Your task to perform on an android device: check out phone information Image 0: 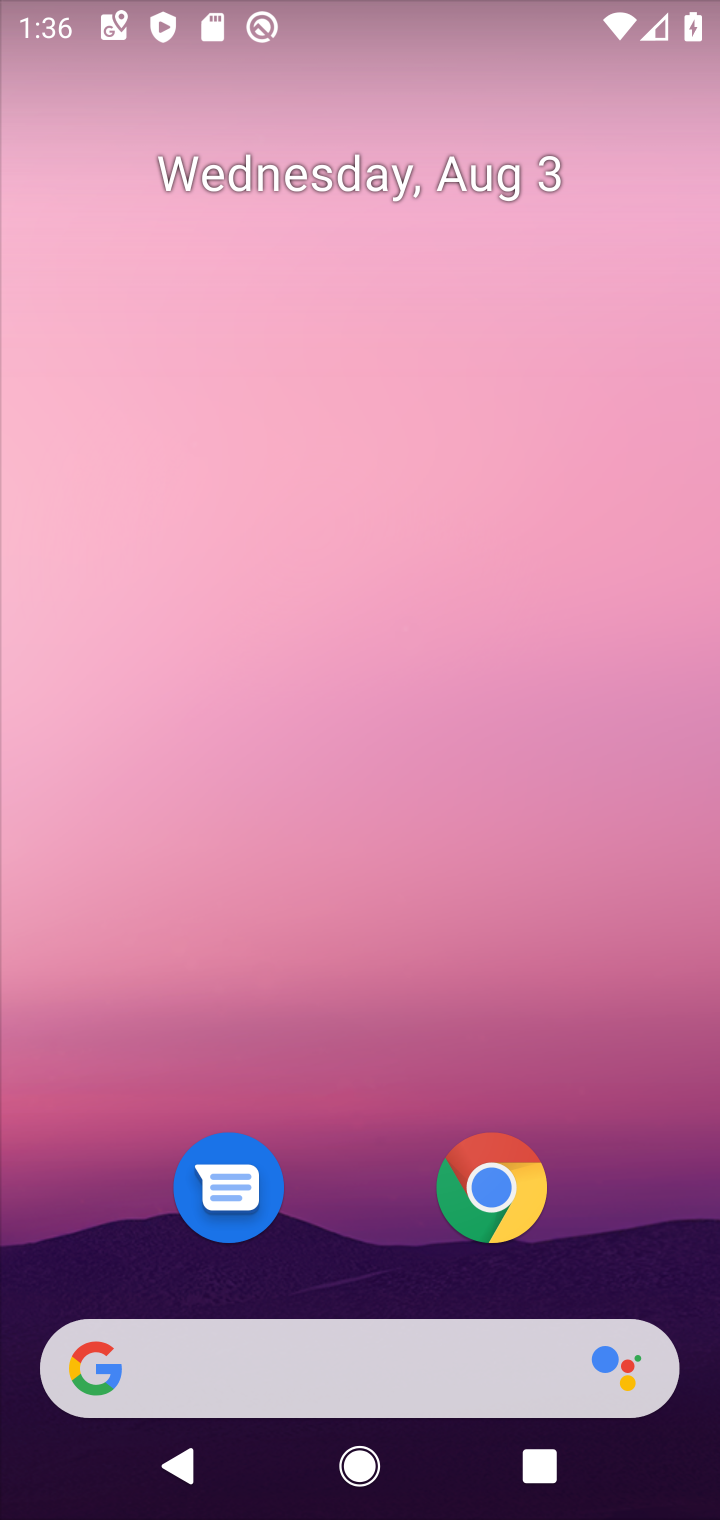
Step 0: drag from (387, 1056) to (394, 0)
Your task to perform on an android device: check out phone information Image 1: 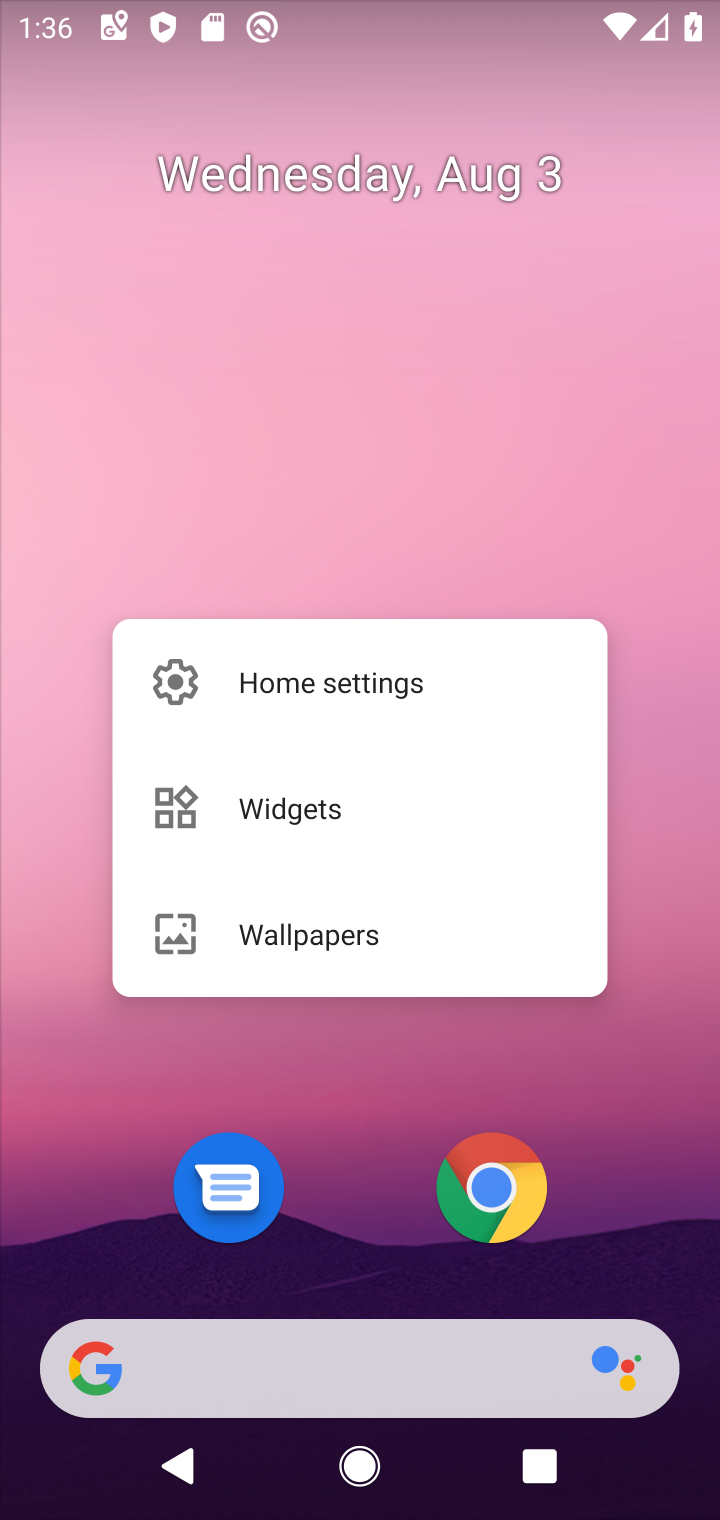
Step 1: click (560, 1025)
Your task to perform on an android device: check out phone information Image 2: 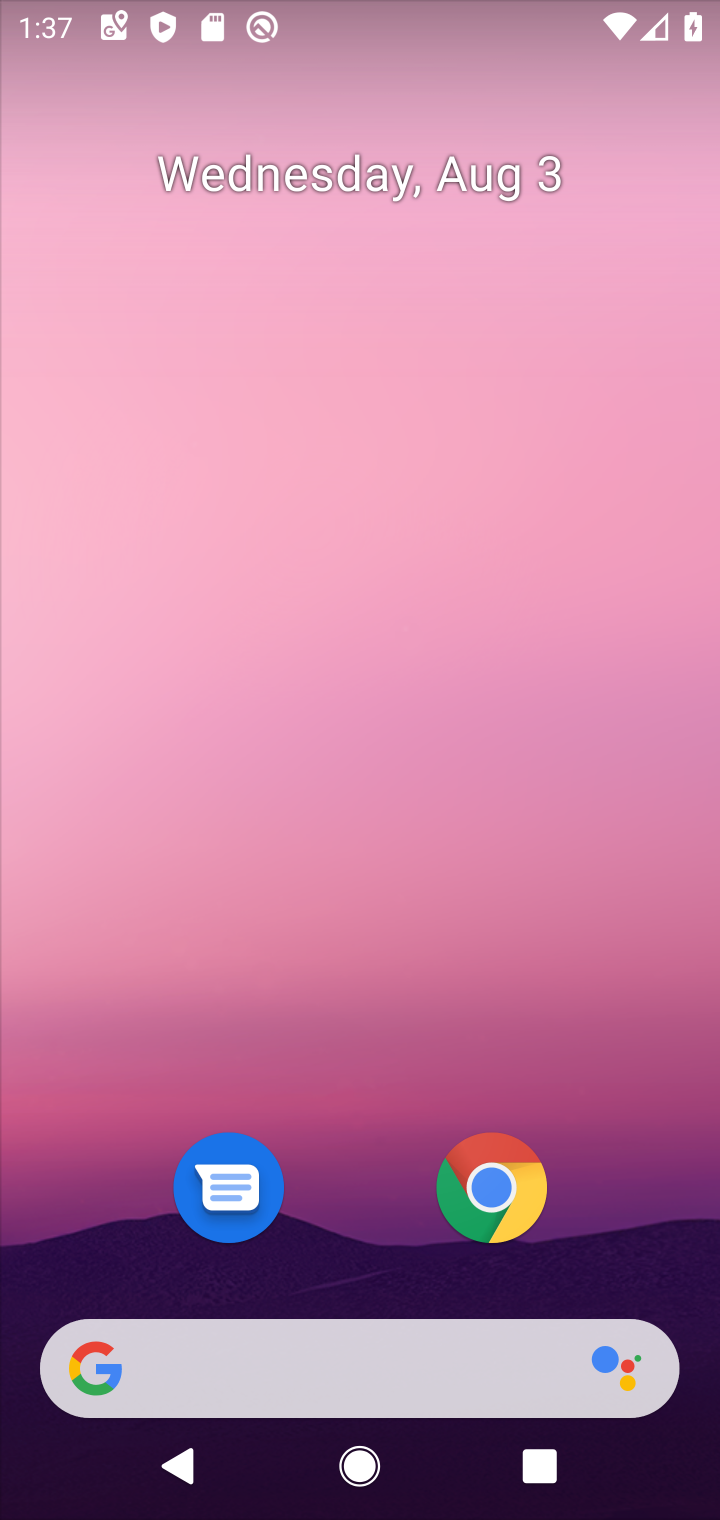
Step 2: drag from (359, 1173) to (515, 1)
Your task to perform on an android device: check out phone information Image 3: 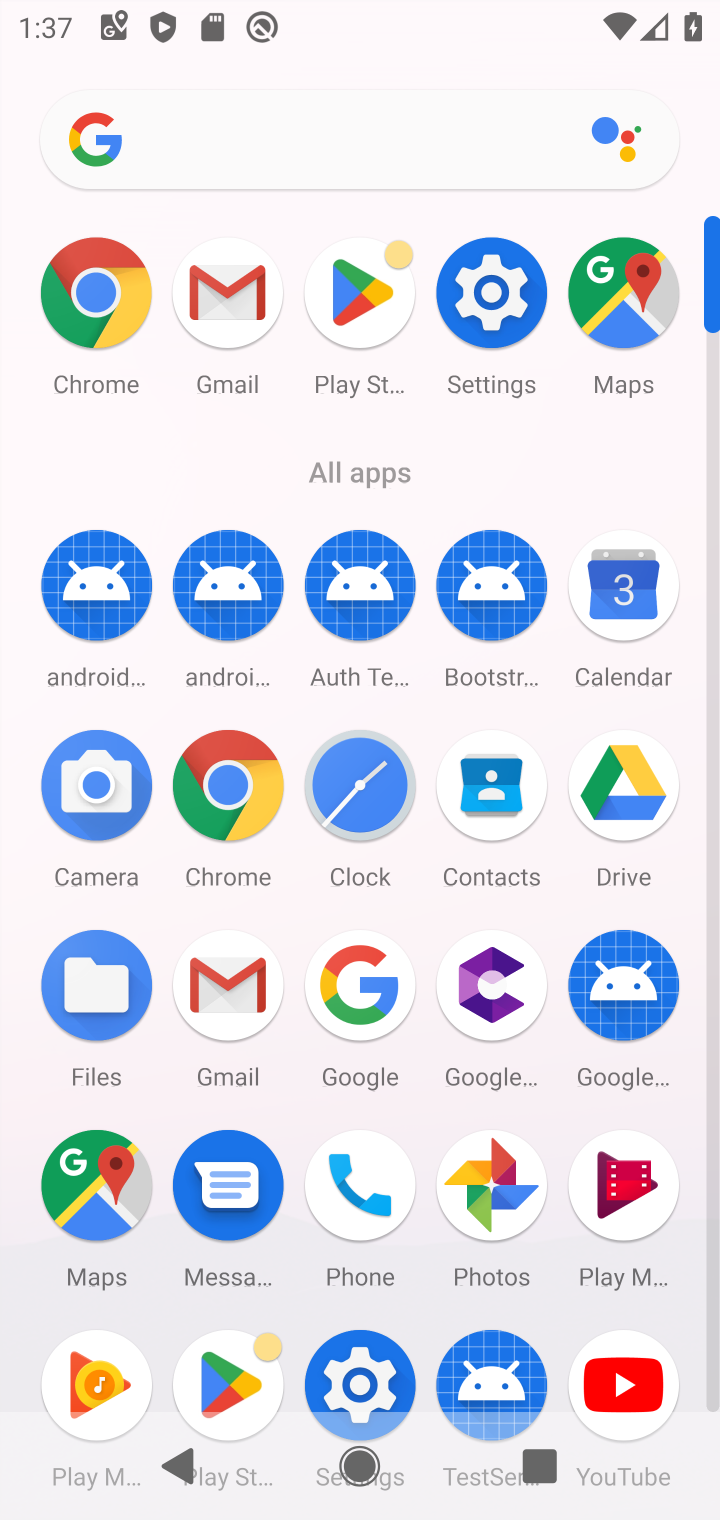
Step 3: click (354, 1259)
Your task to perform on an android device: check out phone information Image 4: 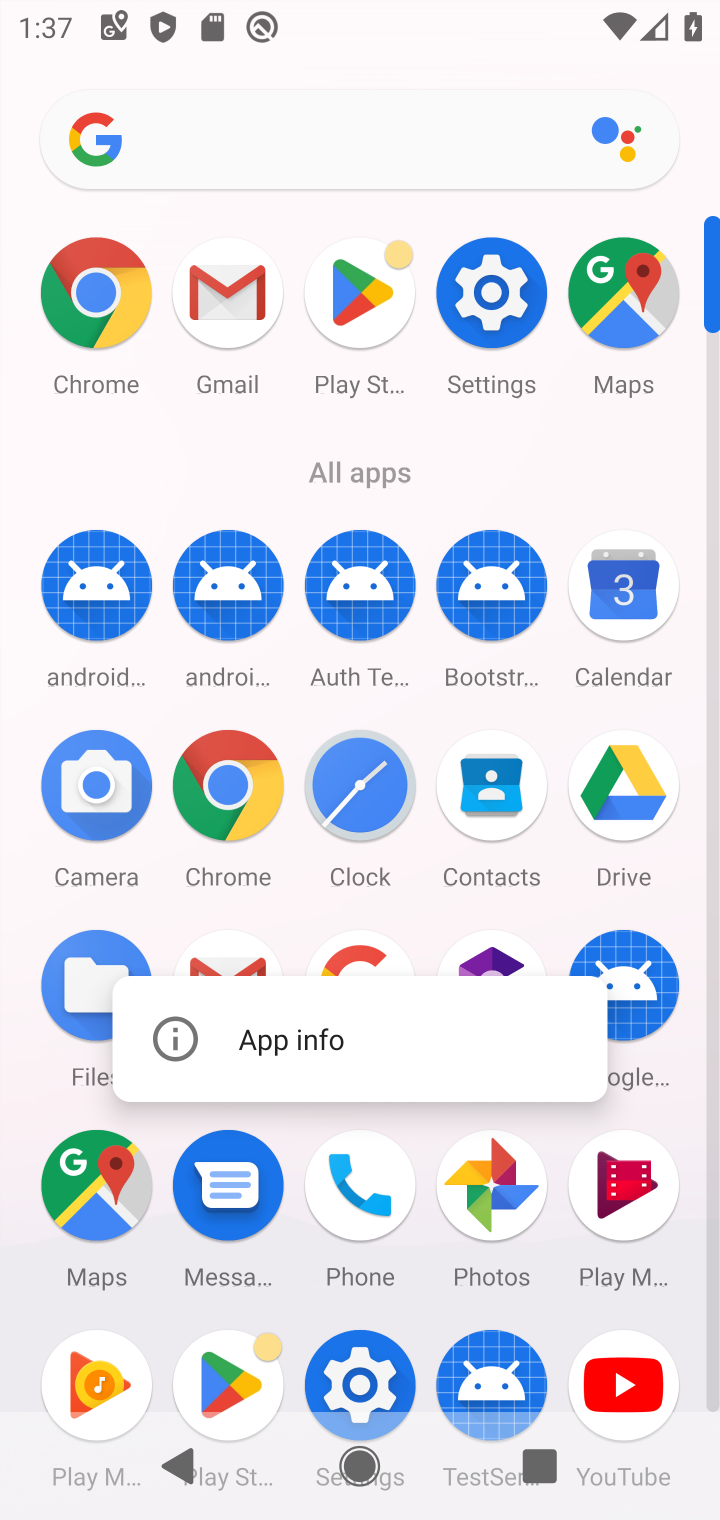
Step 4: click (371, 1173)
Your task to perform on an android device: check out phone information Image 5: 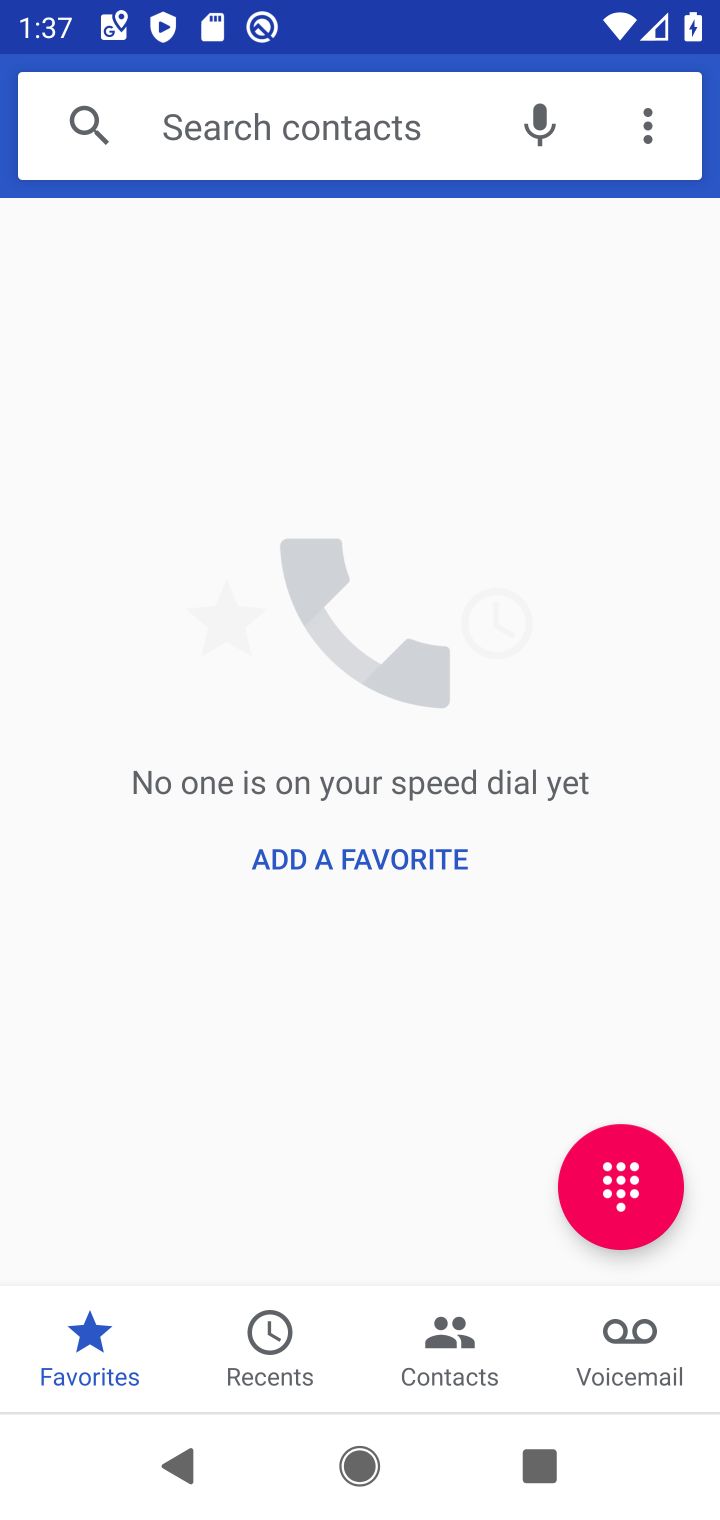
Step 5: click (640, 131)
Your task to perform on an android device: check out phone information Image 6: 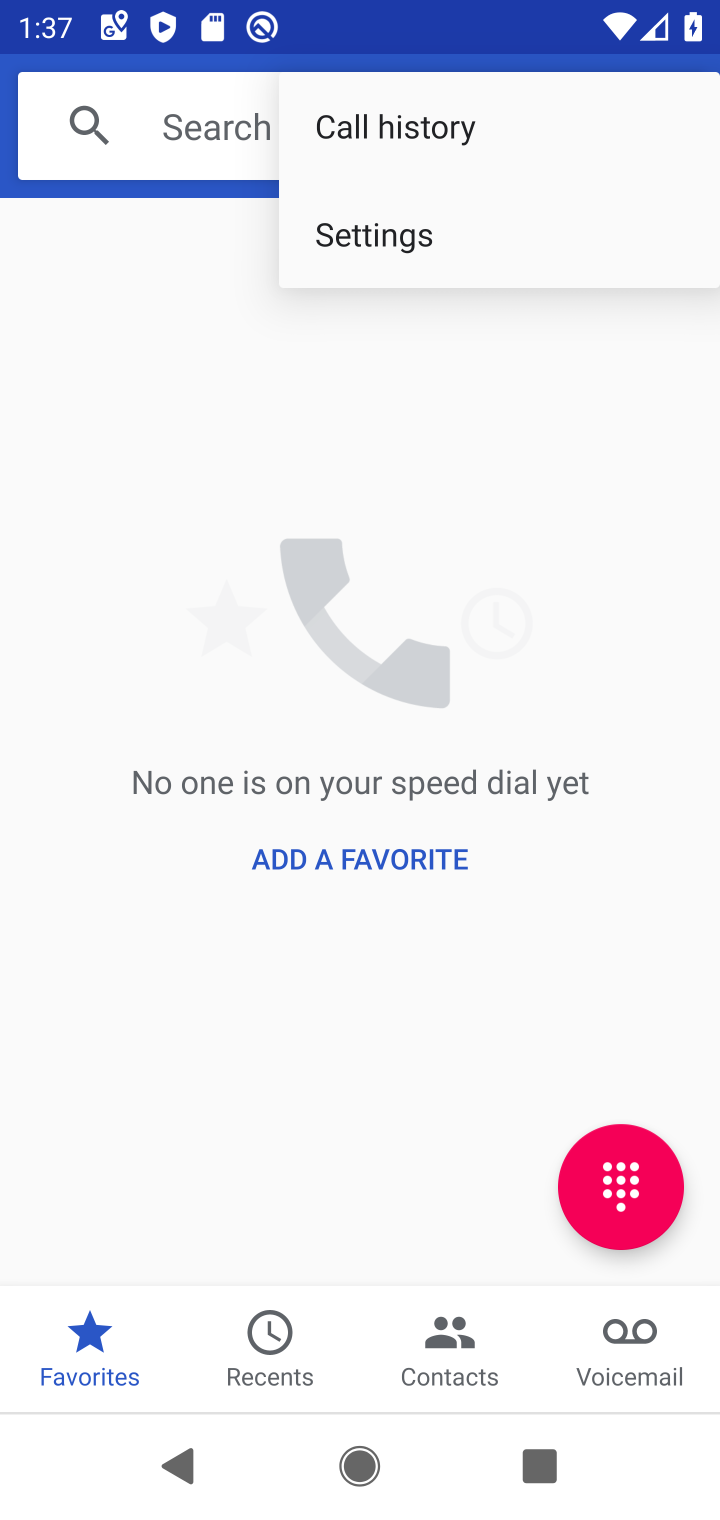
Step 6: click (524, 245)
Your task to perform on an android device: check out phone information Image 7: 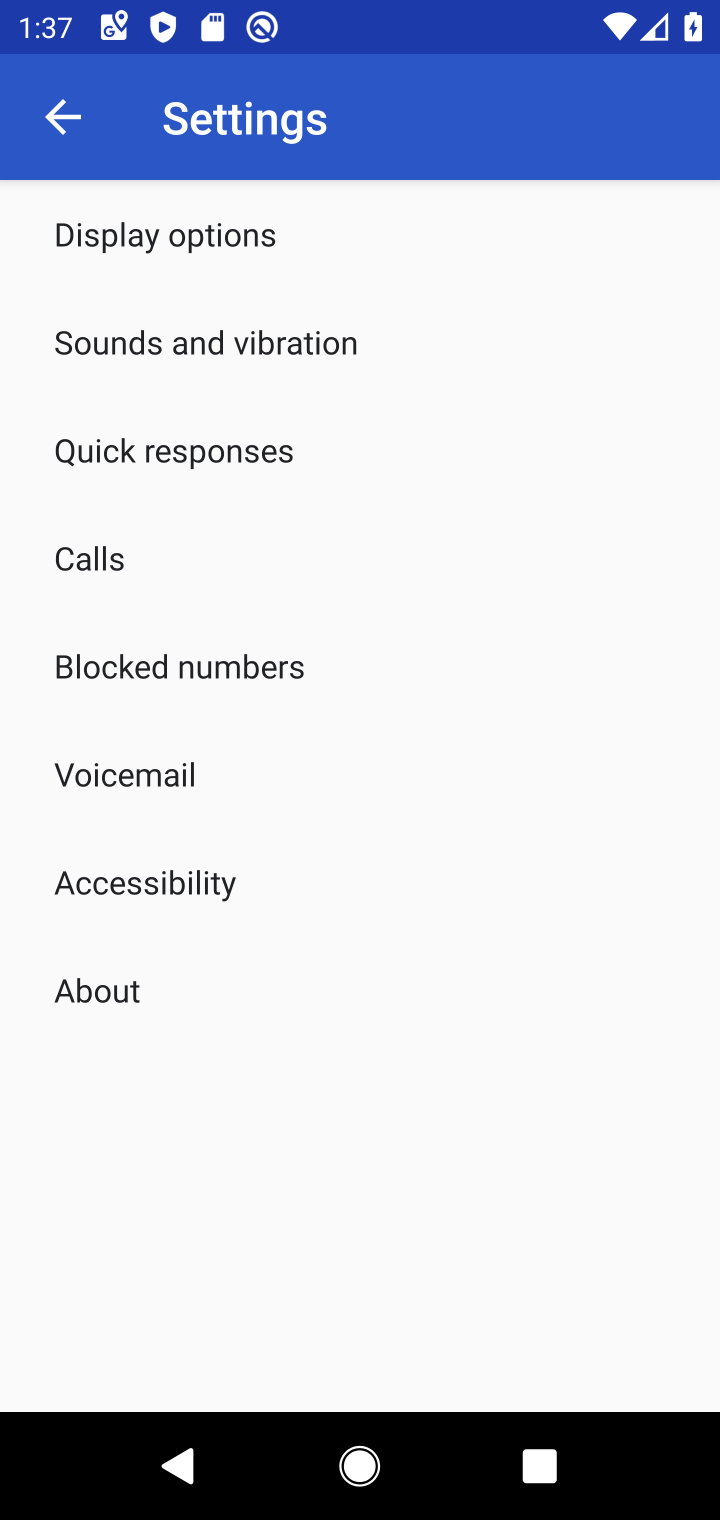
Step 7: click (113, 986)
Your task to perform on an android device: check out phone information Image 8: 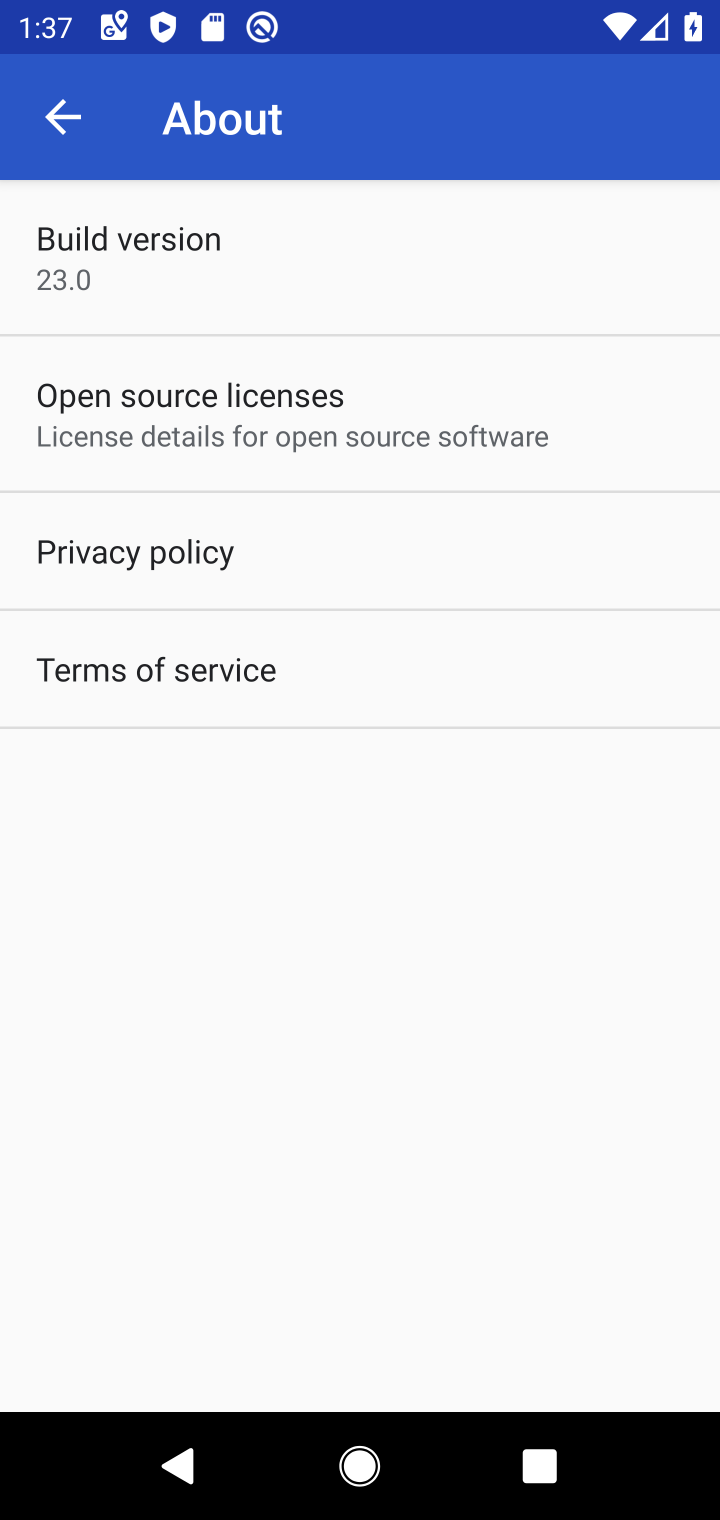
Step 8: task complete